Your task to perform on an android device: read, delete, or share a saved page in the chrome app Image 0: 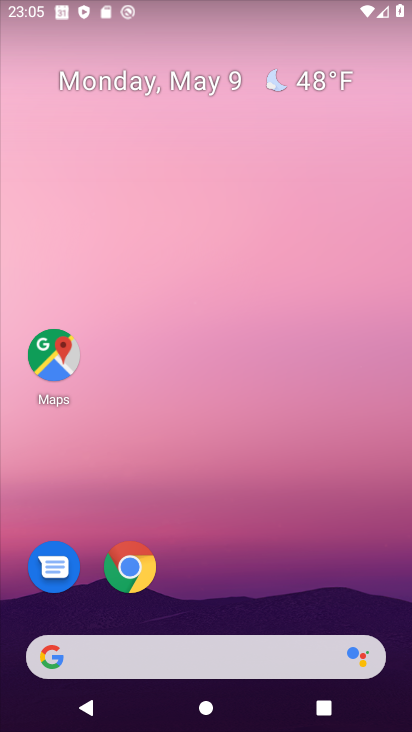
Step 0: click (132, 569)
Your task to perform on an android device: read, delete, or share a saved page in the chrome app Image 1: 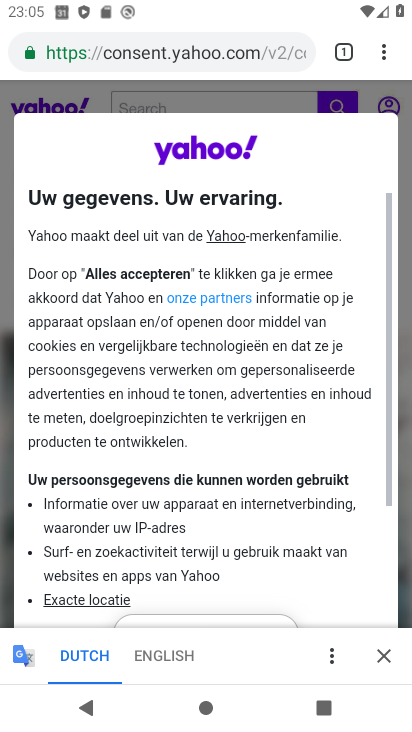
Step 1: click (385, 53)
Your task to perform on an android device: read, delete, or share a saved page in the chrome app Image 2: 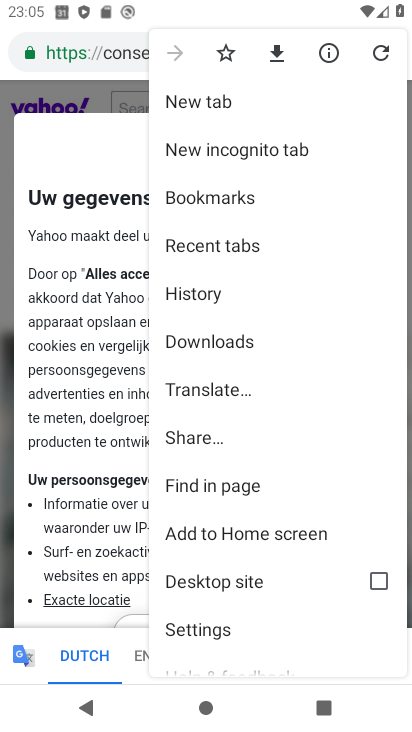
Step 2: click (229, 341)
Your task to perform on an android device: read, delete, or share a saved page in the chrome app Image 3: 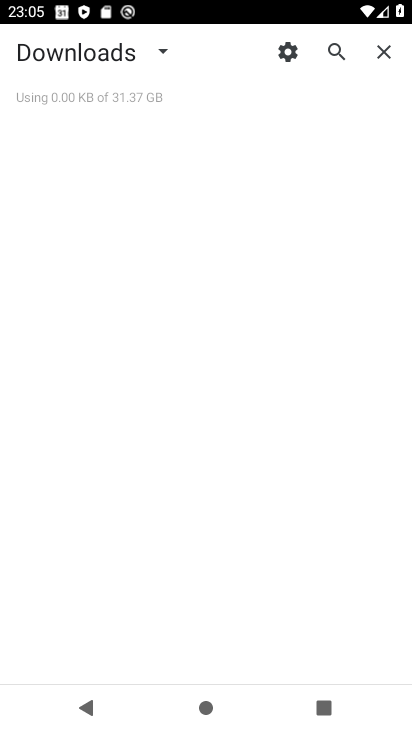
Step 3: click (159, 52)
Your task to perform on an android device: read, delete, or share a saved page in the chrome app Image 4: 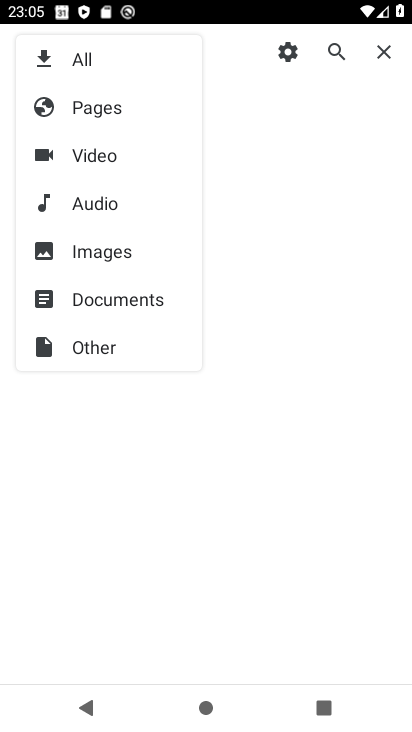
Step 4: click (124, 110)
Your task to perform on an android device: read, delete, or share a saved page in the chrome app Image 5: 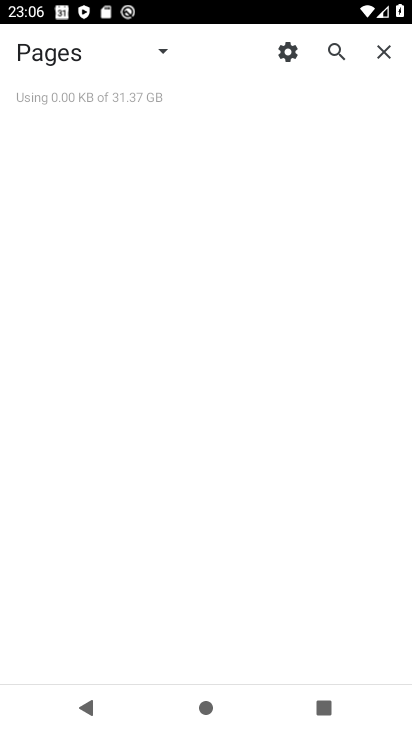
Step 5: click (165, 50)
Your task to perform on an android device: read, delete, or share a saved page in the chrome app Image 6: 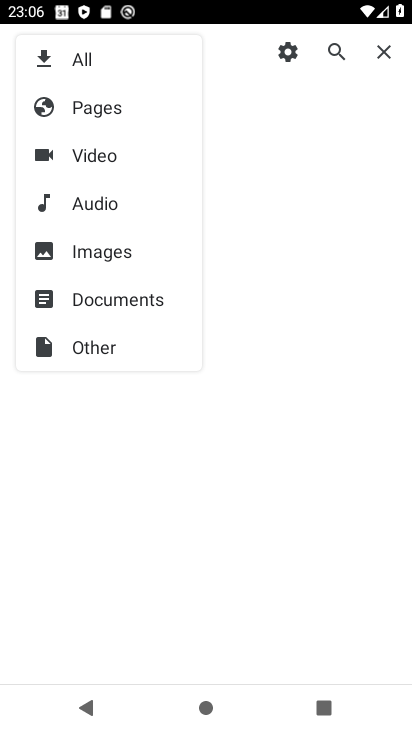
Step 6: click (84, 54)
Your task to perform on an android device: read, delete, or share a saved page in the chrome app Image 7: 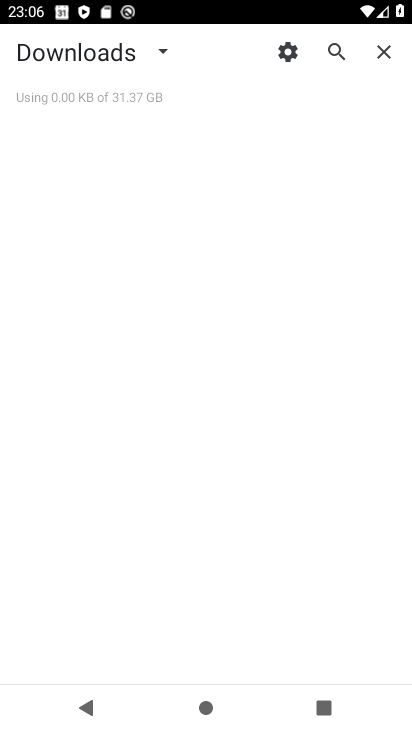
Step 7: click (289, 53)
Your task to perform on an android device: read, delete, or share a saved page in the chrome app Image 8: 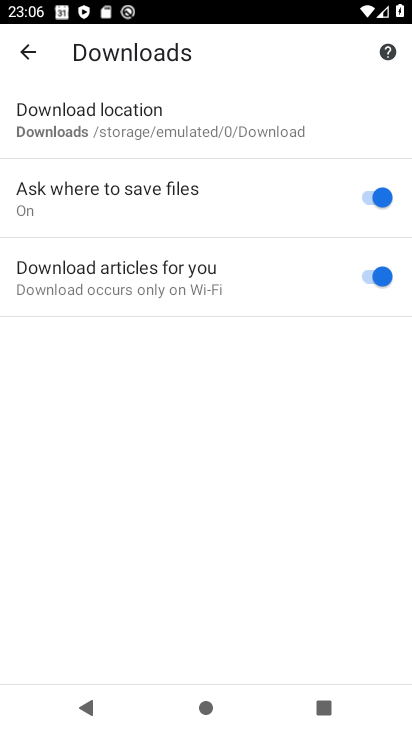
Step 8: task complete